Your task to perform on an android device: Open Youtube and go to the subscriptions tab Image 0: 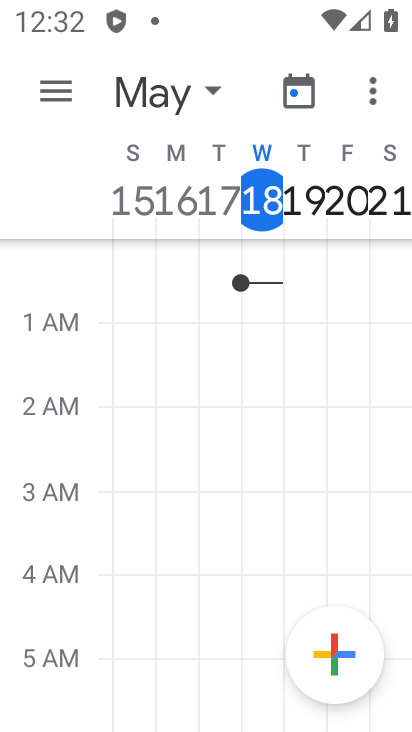
Step 0: press home button
Your task to perform on an android device: Open Youtube and go to the subscriptions tab Image 1: 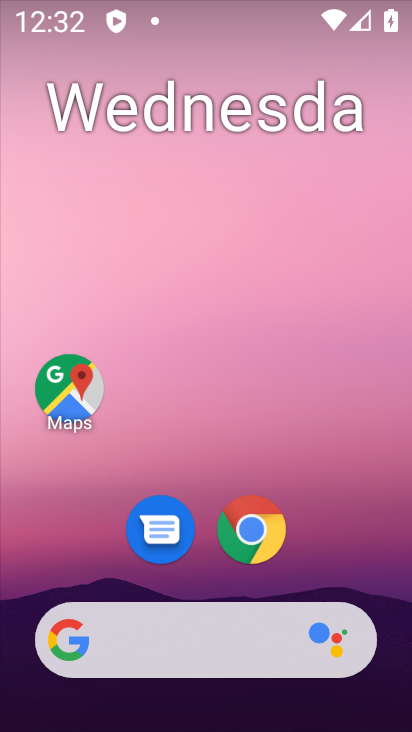
Step 1: drag from (181, 726) to (180, 101)
Your task to perform on an android device: Open Youtube and go to the subscriptions tab Image 2: 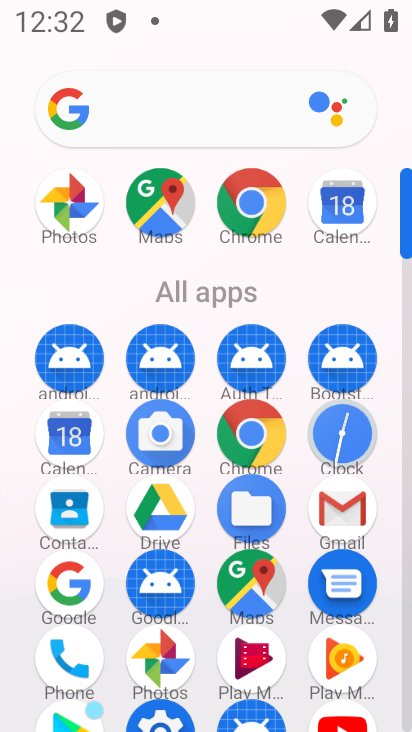
Step 2: drag from (289, 695) to (295, 324)
Your task to perform on an android device: Open Youtube and go to the subscriptions tab Image 3: 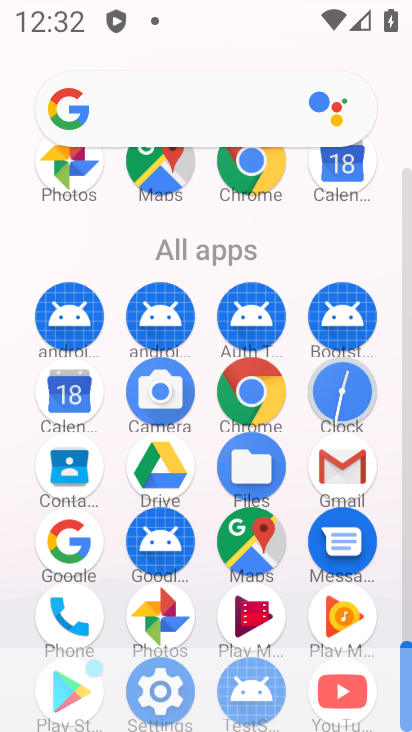
Step 3: drag from (295, 639) to (299, 287)
Your task to perform on an android device: Open Youtube and go to the subscriptions tab Image 4: 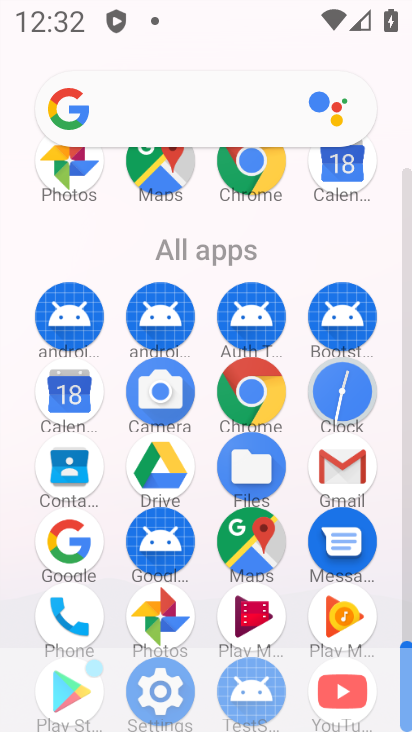
Step 4: click (334, 690)
Your task to perform on an android device: Open Youtube and go to the subscriptions tab Image 5: 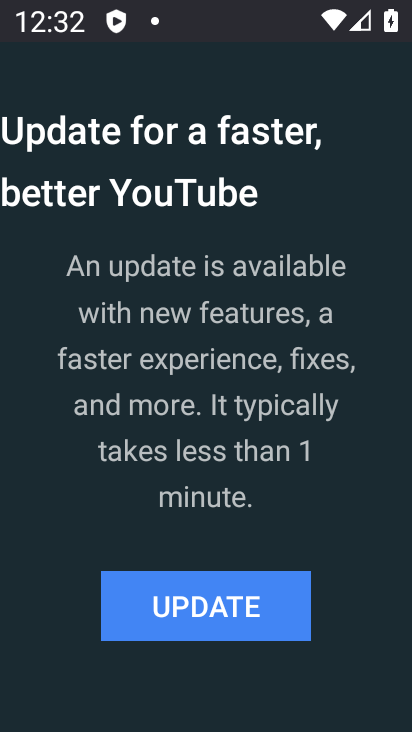
Step 5: click (214, 602)
Your task to perform on an android device: Open Youtube and go to the subscriptions tab Image 6: 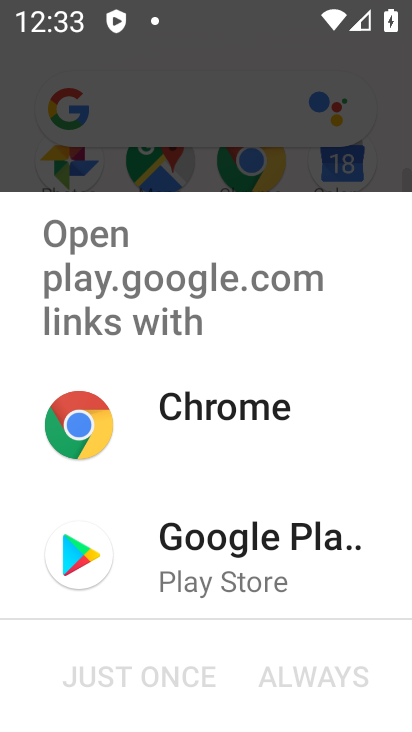
Step 6: click (182, 541)
Your task to perform on an android device: Open Youtube and go to the subscriptions tab Image 7: 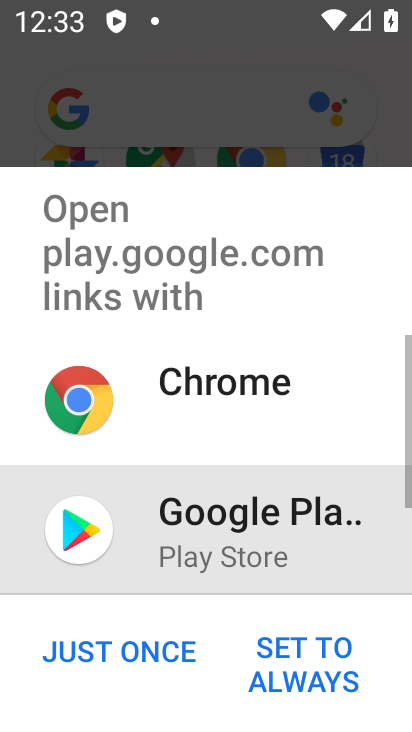
Step 7: click (133, 649)
Your task to perform on an android device: Open Youtube and go to the subscriptions tab Image 8: 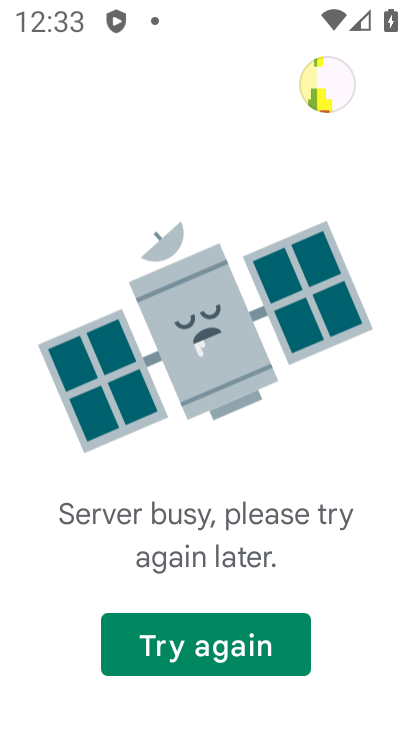
Step 8: click (154, 632)
Your task to perform on an android device: Open Youtube and go to the subscriptions tab Image 9: 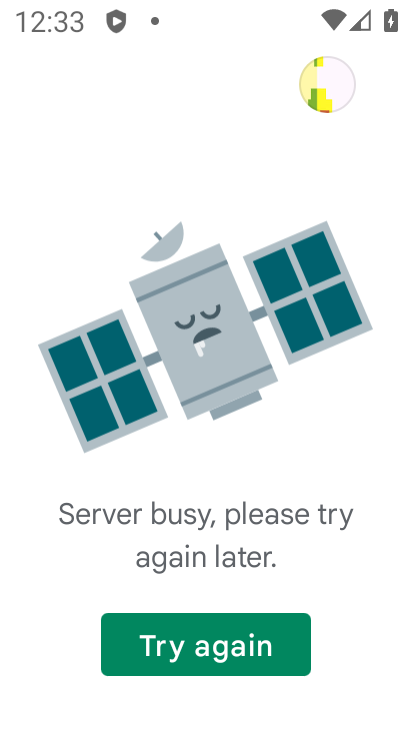
Step 9: task complete